Your task to perform on an android device: Search for Italian restaurants on Maps Image 0: 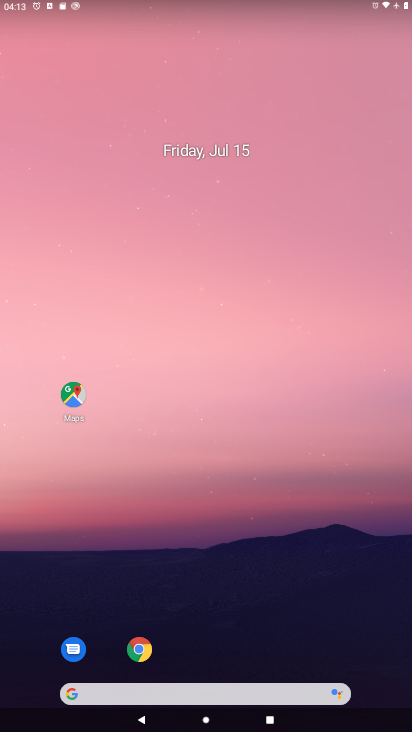
Step 0: click (73, 396)
Your task to perform on an android device: Search for Italian restaurants on Maps Image 1: 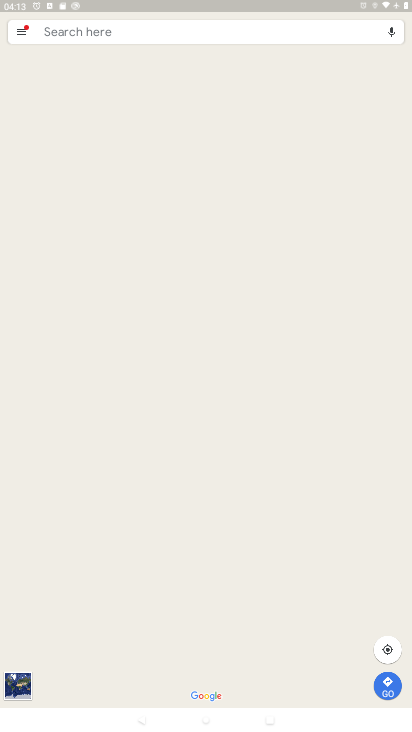
Step 1: click (106, 33)
Your task to perform on an android device: Search for Italian restaurants on Maps Image 2: 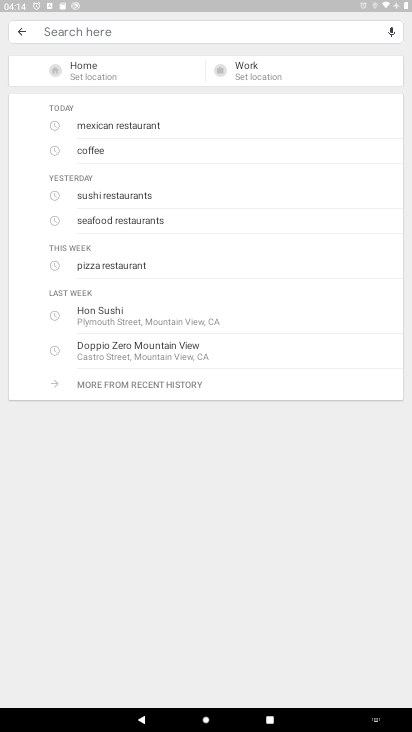
Step 2: type "italian restaurants"
Your task to perform on an android device: Search for Italian restaurants on Maps Image 3: 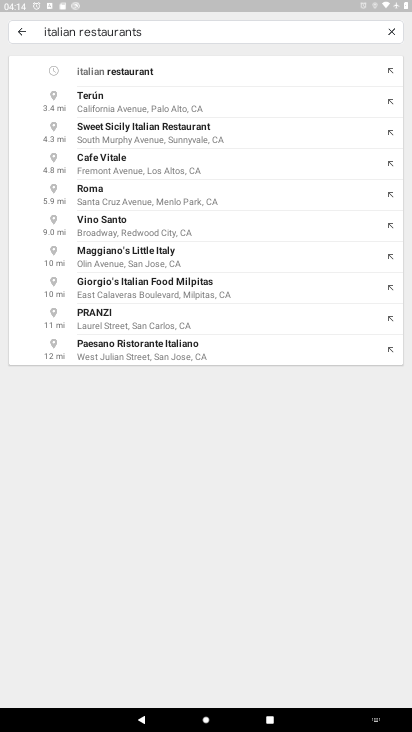
Step 3: click (102, 73)
Your task to perform on an android device: Search for Italian restaurants on Maps Image 4: 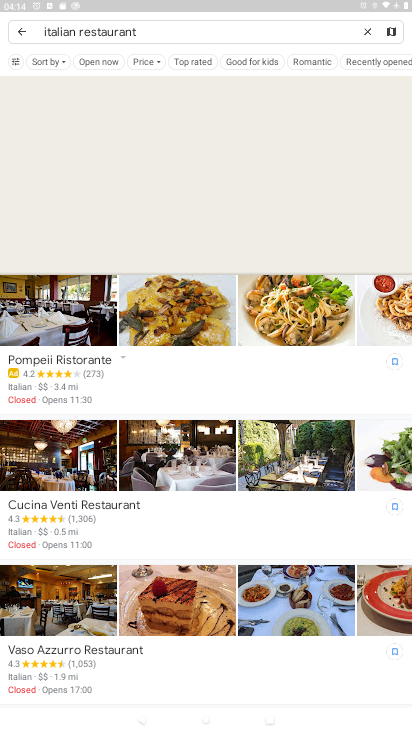
Step 4: task complete